Your task to perform on an android device: Open Google Chrome Image 0: 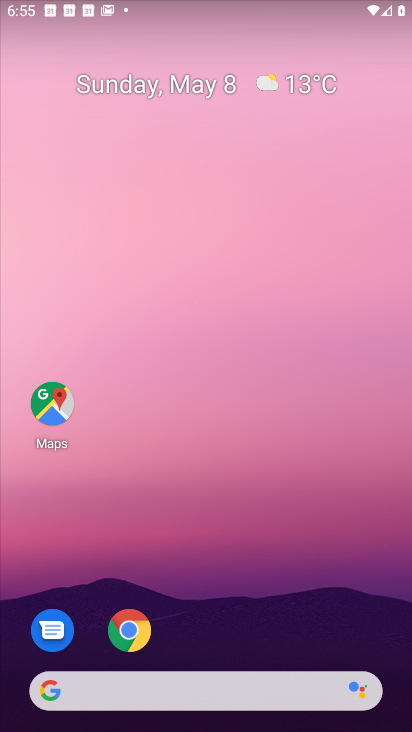
Step 0: click (131, 634)
Your task to perform on an android device: Open Google Chrome Image 1: 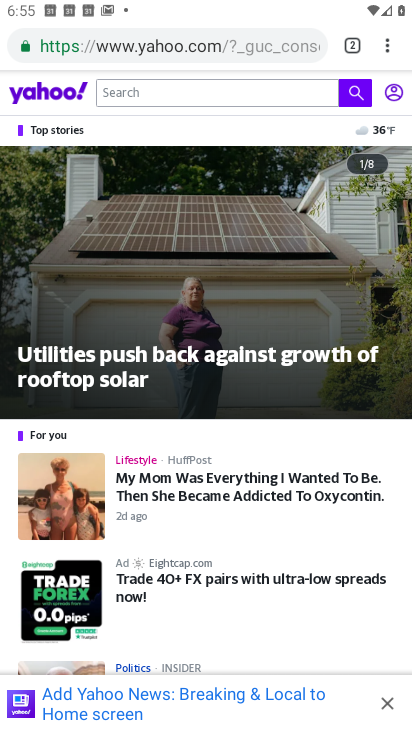
Step 1: task complete